Your task to perform on an android device: create a new album in the google photos Image 0: 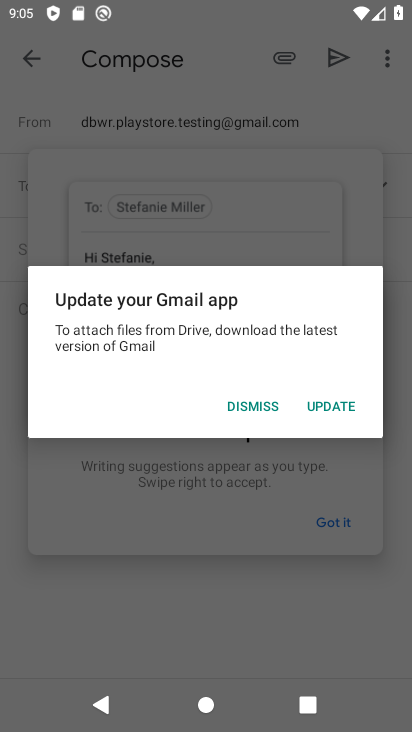
Step 0: click (259, 401)
Your task to perform on an android device: create a new album in the google photos Image 1: 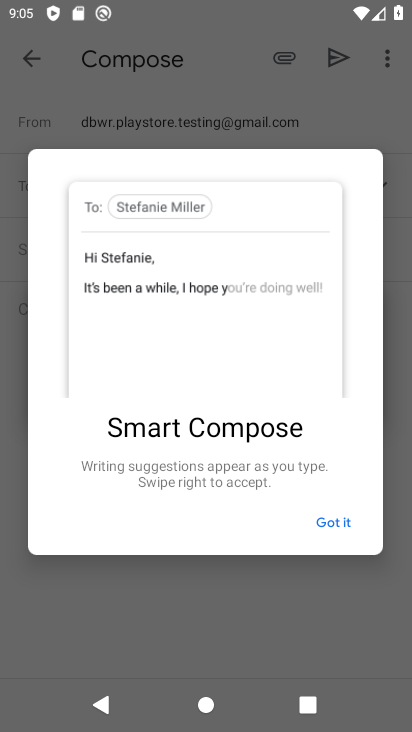
Step 1: click (344, 88)
Your task to perform on an android device: create a new album in the google photos Image 2: 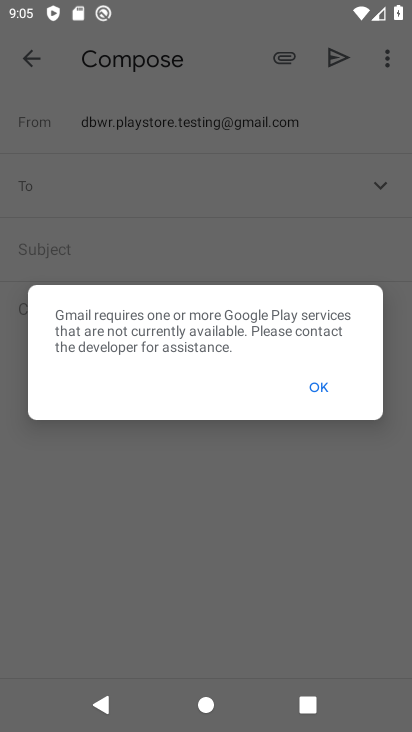
Step 2: click (328, 395)
Your task to perform on an android device: create a new album in the google photos Image 3: 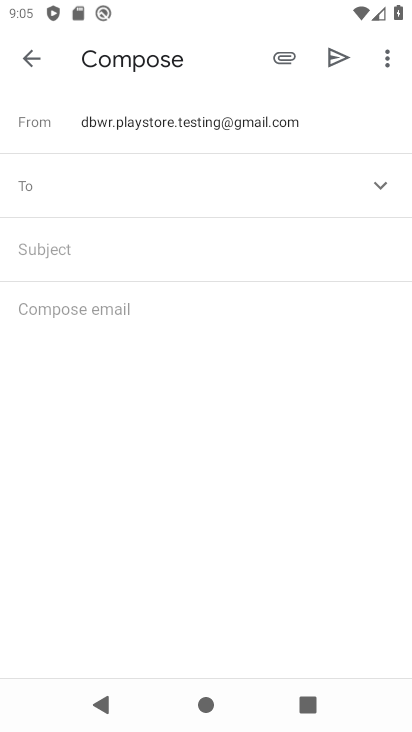
Step 3: press home button
Your task to perform on an android device: create a new album in the google photos Image 4: 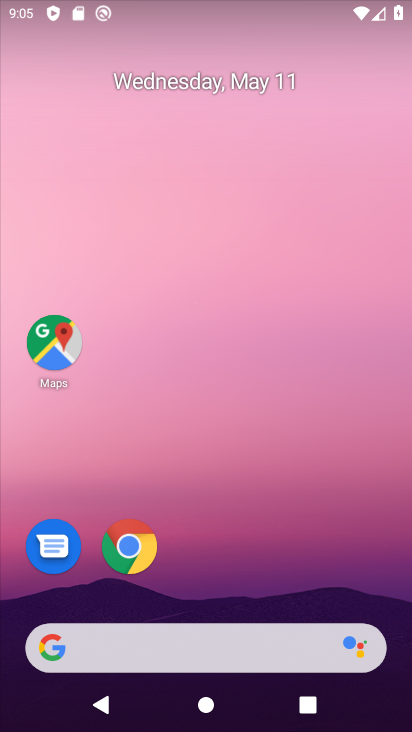
Step 4: drag from (316, 569) to (224, 147)
Your task to perform on an android device: create a new album in the google photos Image 5: 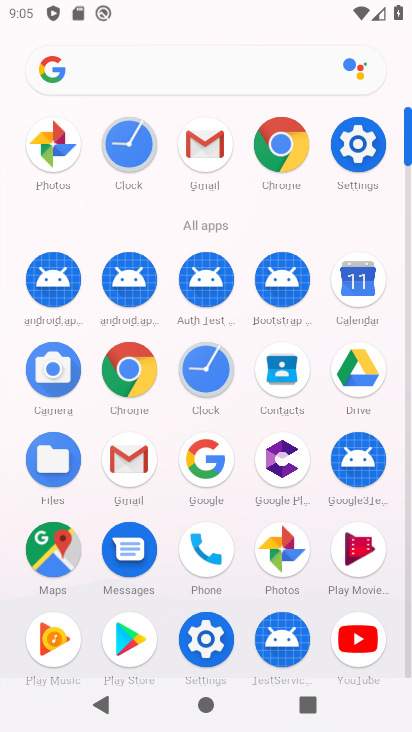
Step 5: click (283, 563)
Your task to perform on an android device: create a new album in the google photos Image 6: 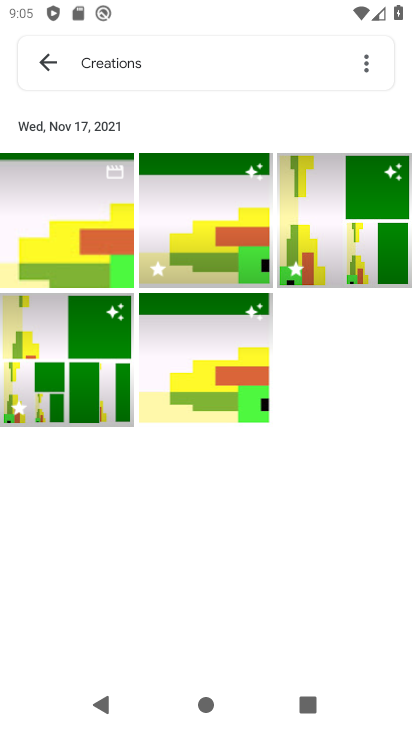
Step 6: click (78, 245)
Your task to perform on an android device: create a new album in the google photos Image 7: 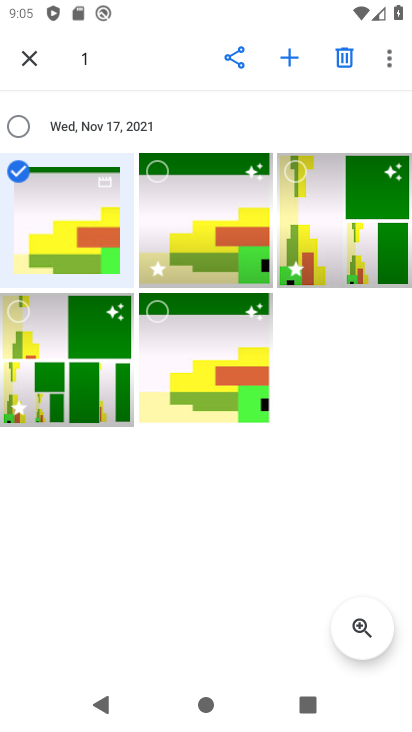
Step 7: click (149, 243)
Your task to perform on an android device: create a new album in the google photos Image 8: 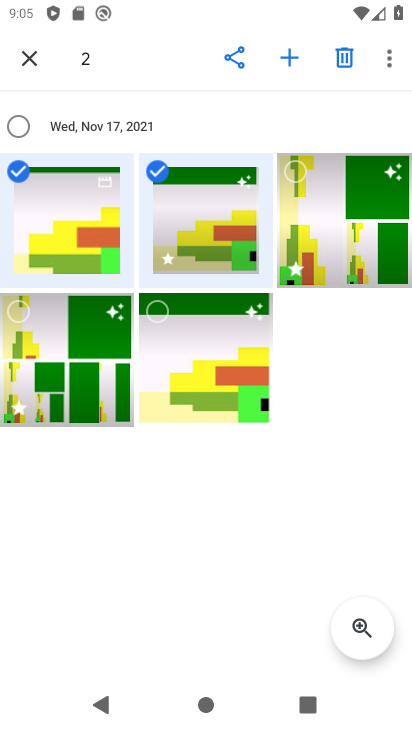
Step 8: click (297, 62)
Your task to perform on an android device: create a new album in the google photos Image 9: 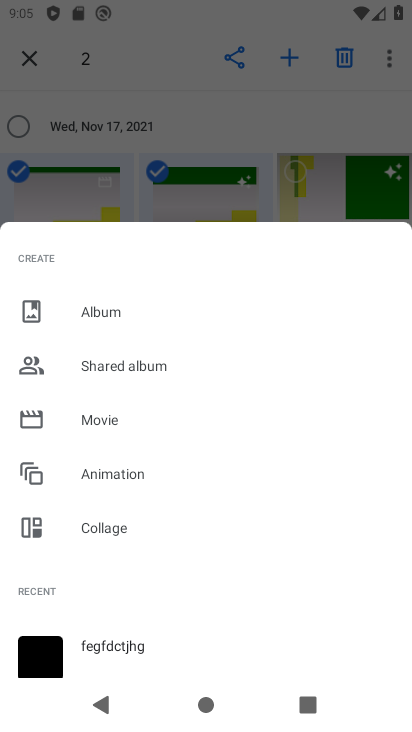
Step 9: click (83, 307)
Your task to perform on an android device: create a new album in the google photos Image 10: 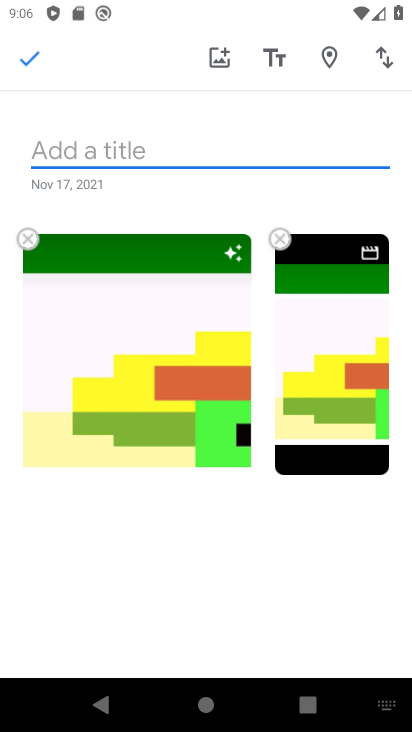
Step 10: type "hkkh"
Your task to perform on an android device: create a new album in the google photos Image 11: 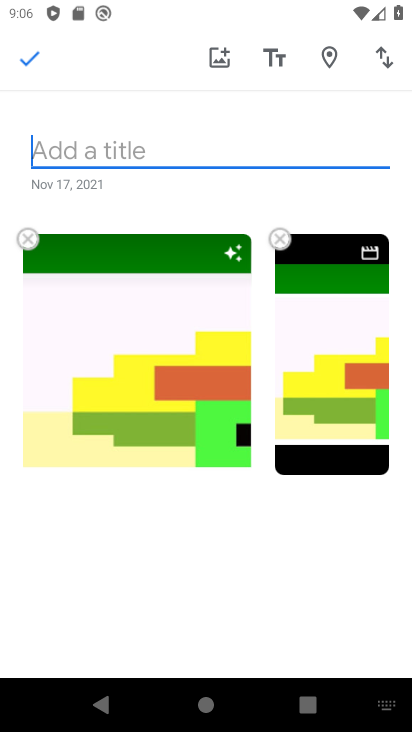
Step 11: click (22, 53)
Your task to perform on an android device: create a new album in the google photos Image 12: 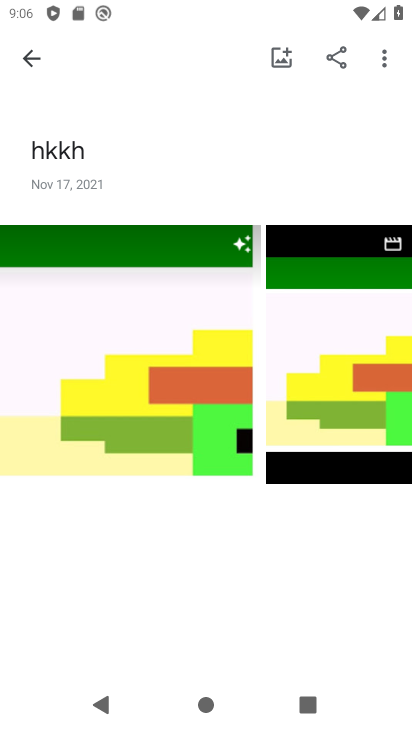
Step 12: task complete